Your task to perform on an android device: Clear all items from cart on costco. Add "bose soundlink mini" to the cart on costco Image 0: 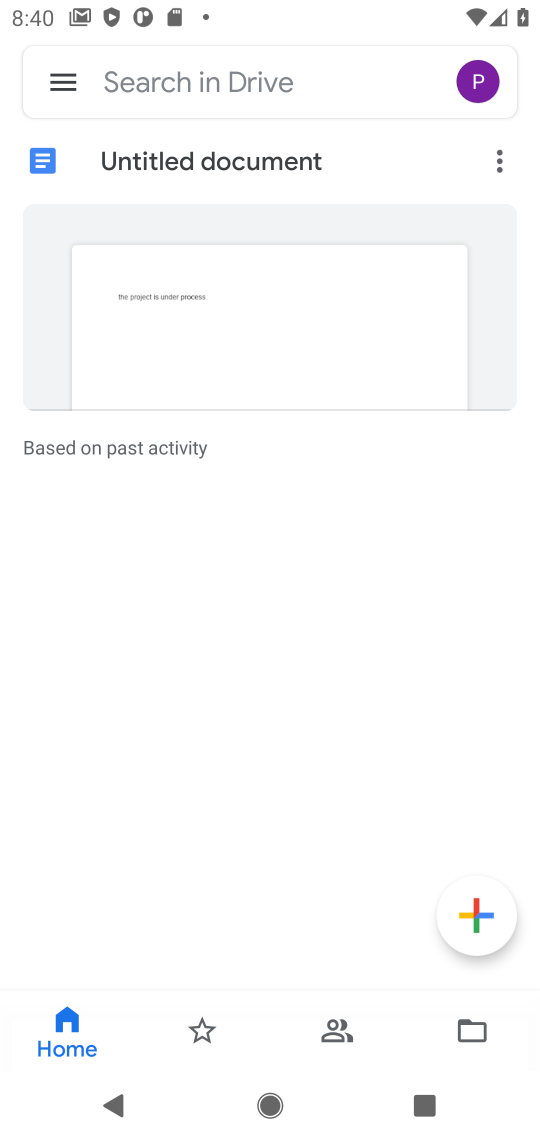
Step 0: press home button
Your task to perform on an android device: Clear all items from cart on costco. Add "bose soundlink mini" to the cart on costco Image 1: 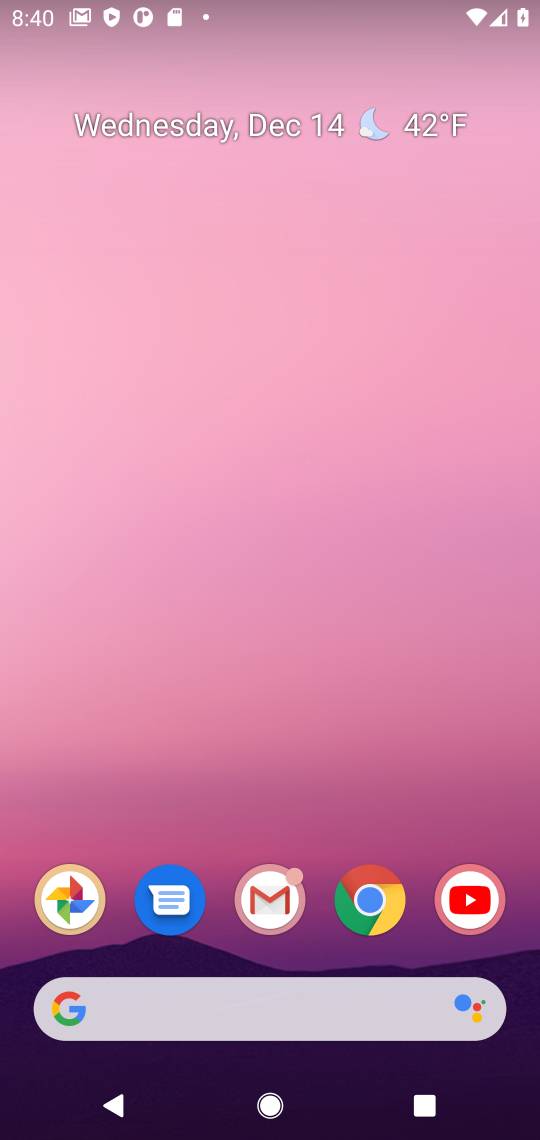
Step 1: click (396, 915)
Your task to perform on an android device: Clear all items from cart on costco. Add "bose soundlink mini" to the cart on costco Image 2: 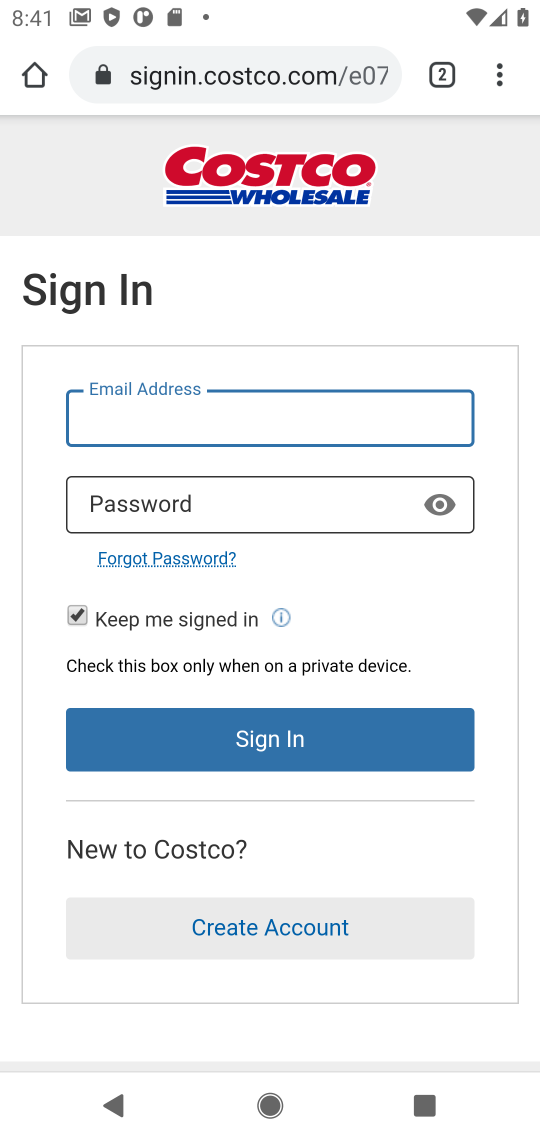
Step 2: press back button
Your task to perform on an android device: Clear all items from cart on costco. Add "bose soundlink mini" to the cart on costco Image 3: 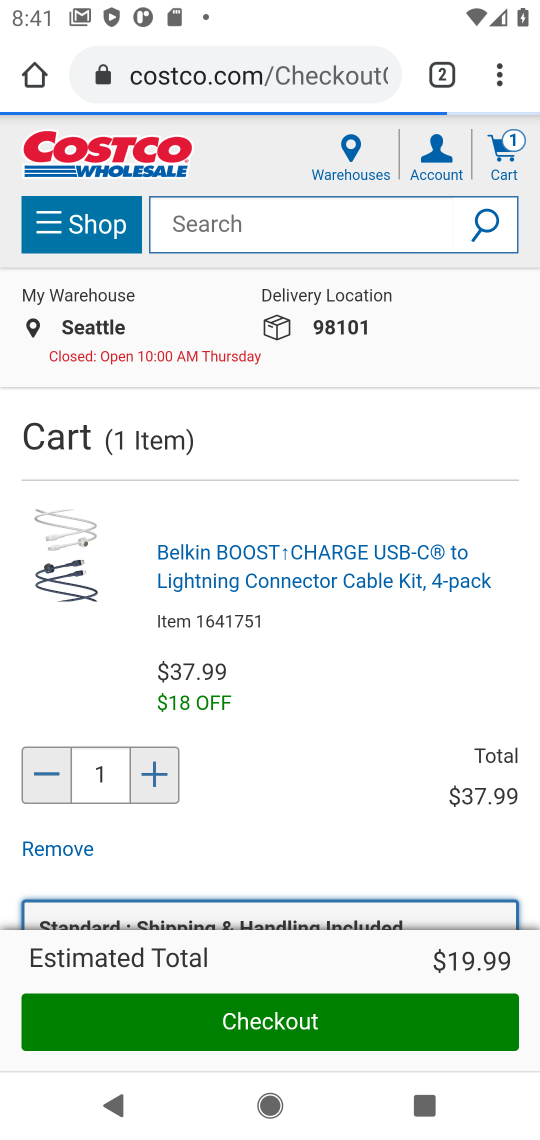
Step 3: click (295, 233)
Your task to perform on an android device: Clear all items from cart on costco. Add "bose soundlink mini" to the cart on costco Image 4: 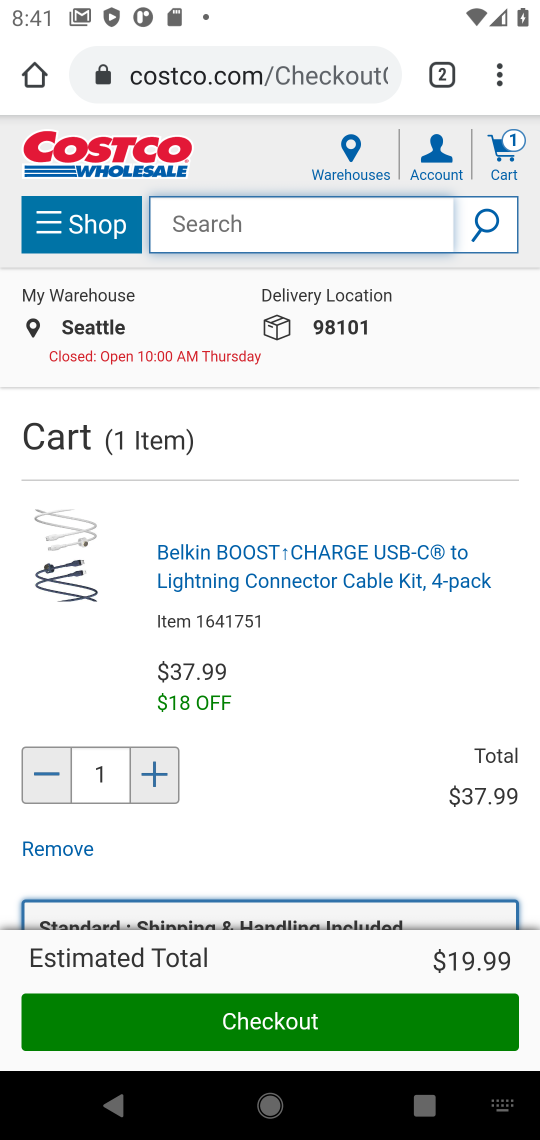
Step 4: click (507, 154)
Your task to perform on an android device: Clear all items from cart on costco. Add "bose soundlink mini" to the cart on costco Image 5: 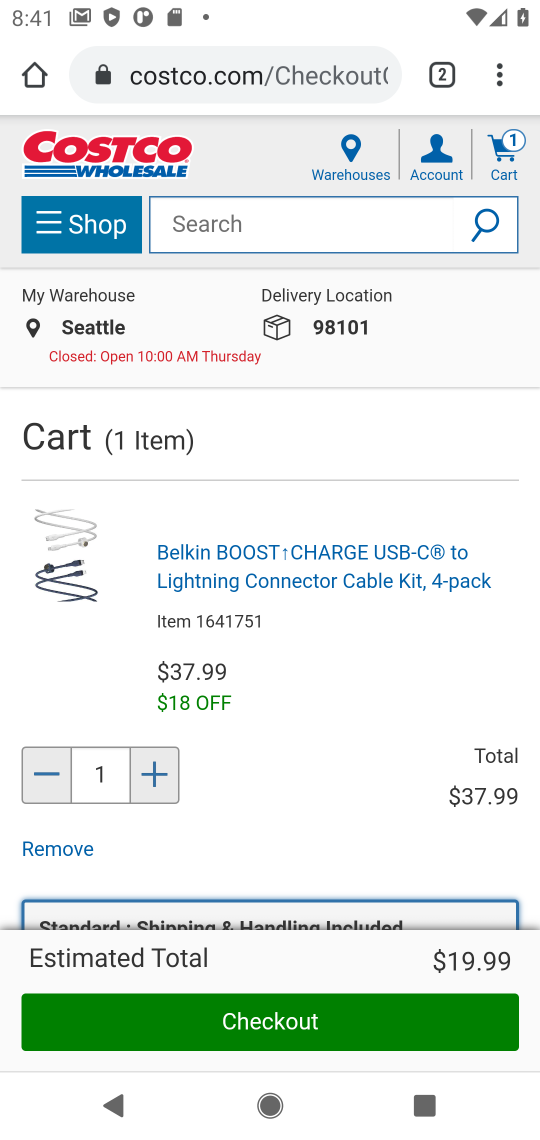
Step 5: click (55, 852)
Your task to perform on an android device: Clear all items from cart on costco. Add "bose soundlink mini" to the cart on costco Image 6: 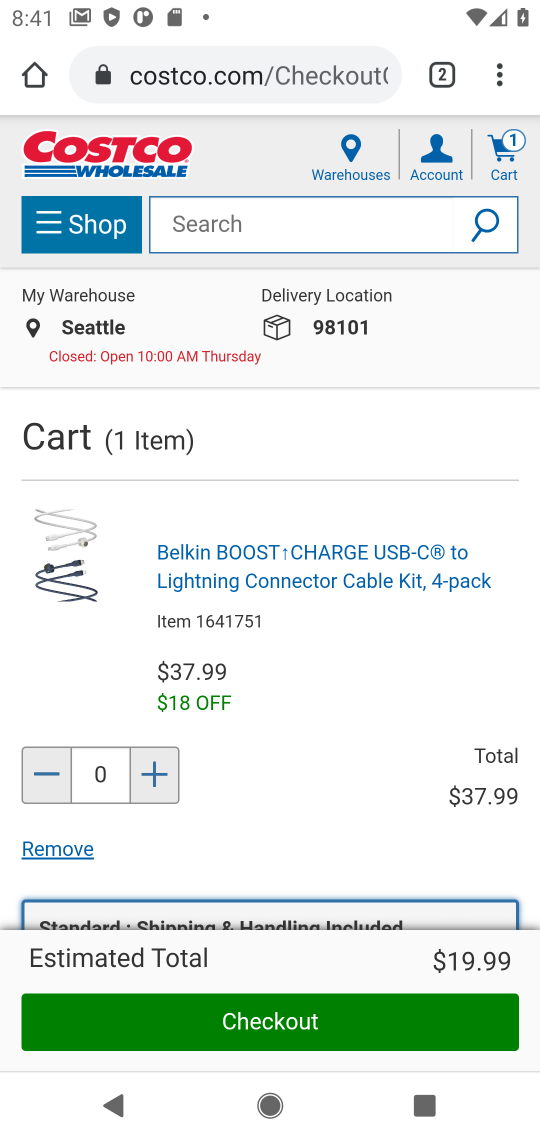
Step 6: click (54, 853)
Your task to perform on an android device: Clear all items from cart on costco. Add "bose soundlink mini" to the cart on costco Image 7: 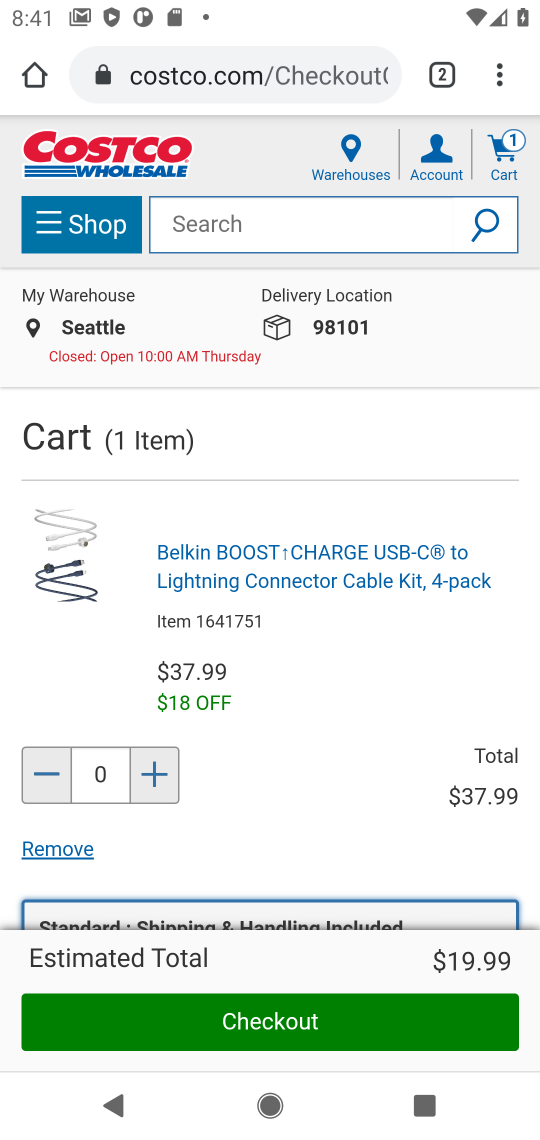
Step 7: click (67, 853)
Your task to perform on an android device: Clear all items from cart on costco. Add "bose soundlink mini" to the cart on costco Image 8: 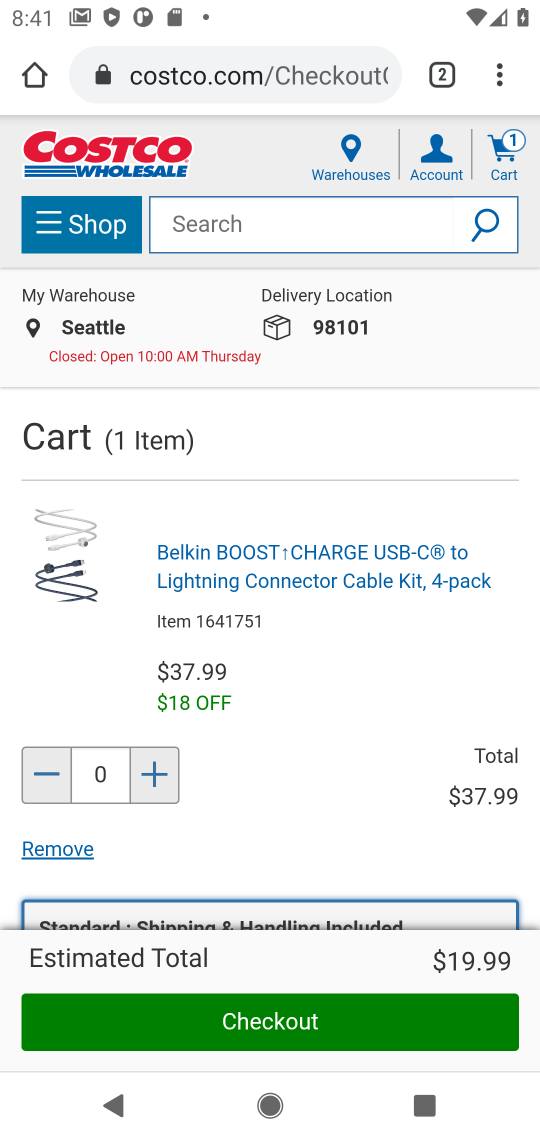
Step 8: drag from (308, 834) to (407, 612)
Your task to perform on an android device: Clear all items from cart on costco. Add "bose soundlink mini" to the cart on costco Image 9: 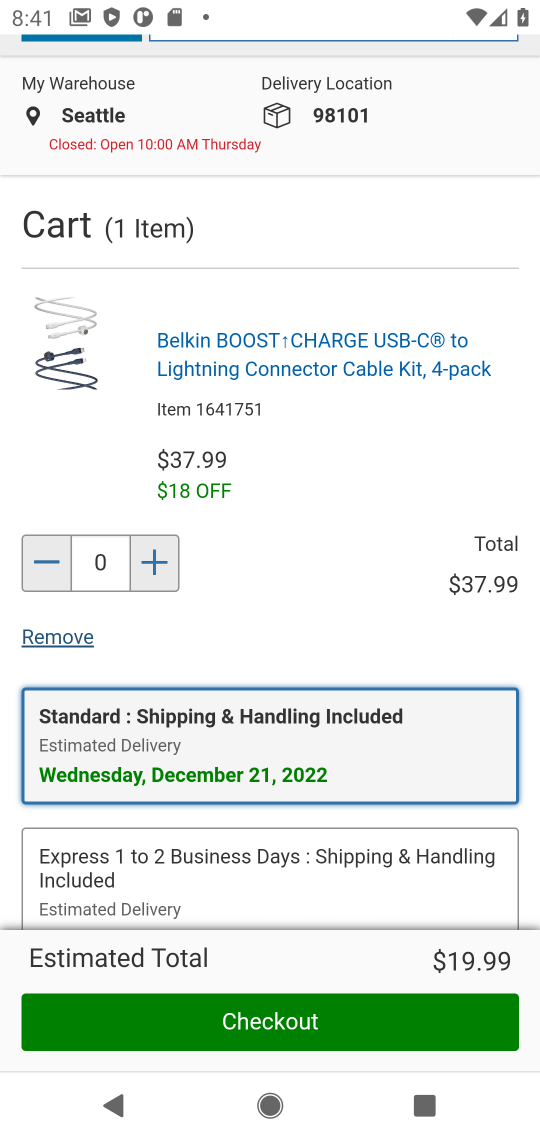
Step 9: drag from (418, 464) to (383, 776)
Your task to perform on an android device: Clear all items from cart on costco. Add "bose soundlink mini" to the cart on costco Image 10: 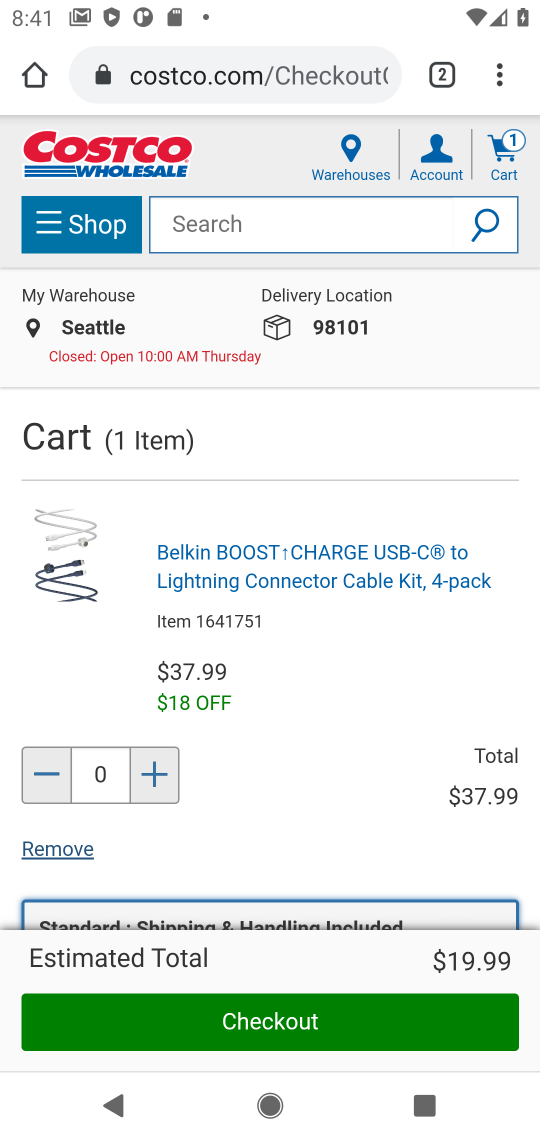
Step 10: click (58, 850)
Your task to perform on an android device: Clear all items from cart on costco. Add "bose soundlink mini" to the cart on costco Image 11: 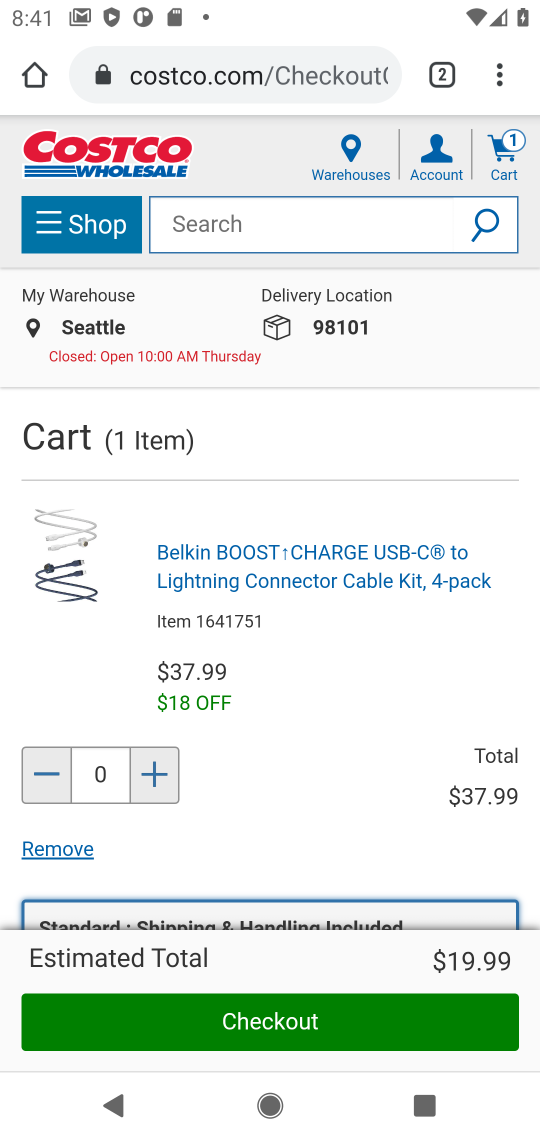
Step 11: drag from (284, 782) to (367, 467)
Your task to perform on an android device: Clear all items from cart on costco. Add "bose soundlink mini" to the cart on costco Image 12: 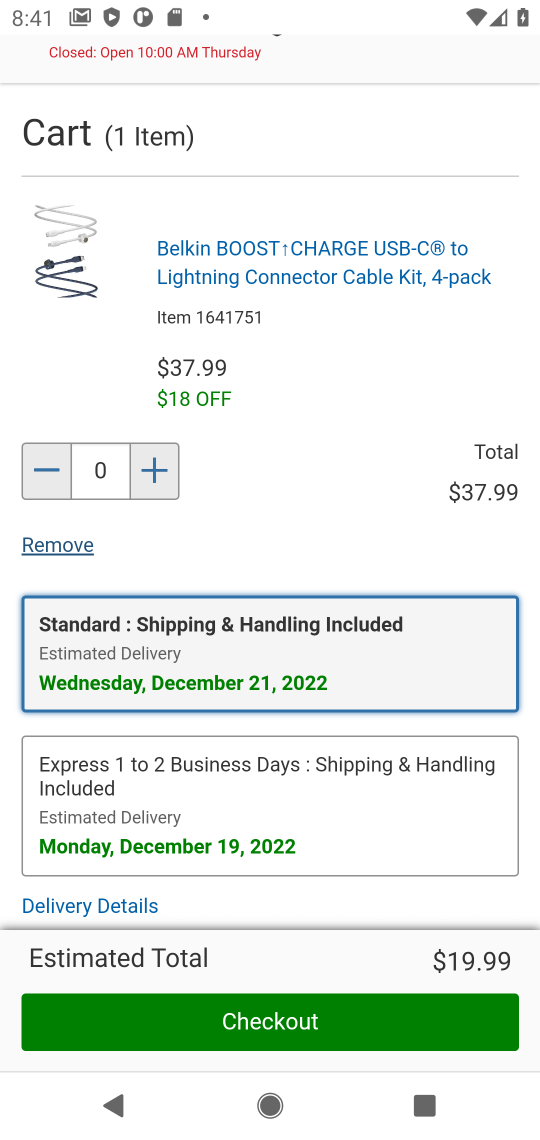
Step 12: drag from (327, 861) to (432, 542)
Your task to perform on an android device: Clear all items from cart on costco. Add "bose soundlink mini" to the cart on costco Image 13: 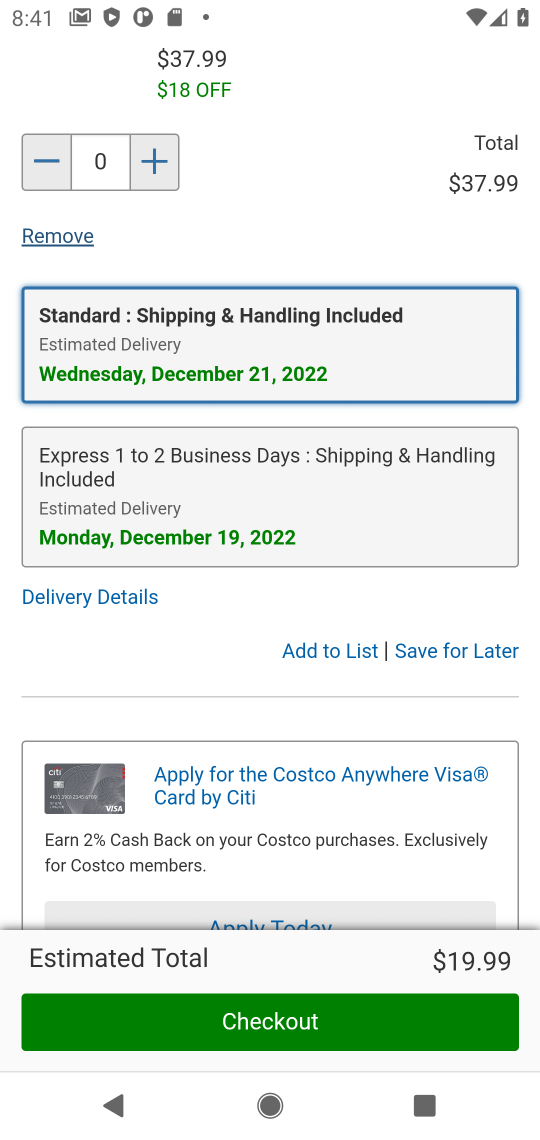
Step 13: drag from (322, 786) to (395, 375)
Your task to perform on an android device: Clear all items from cart on costco. Add "bose soundlink mini" to the cart on costco Image 14: 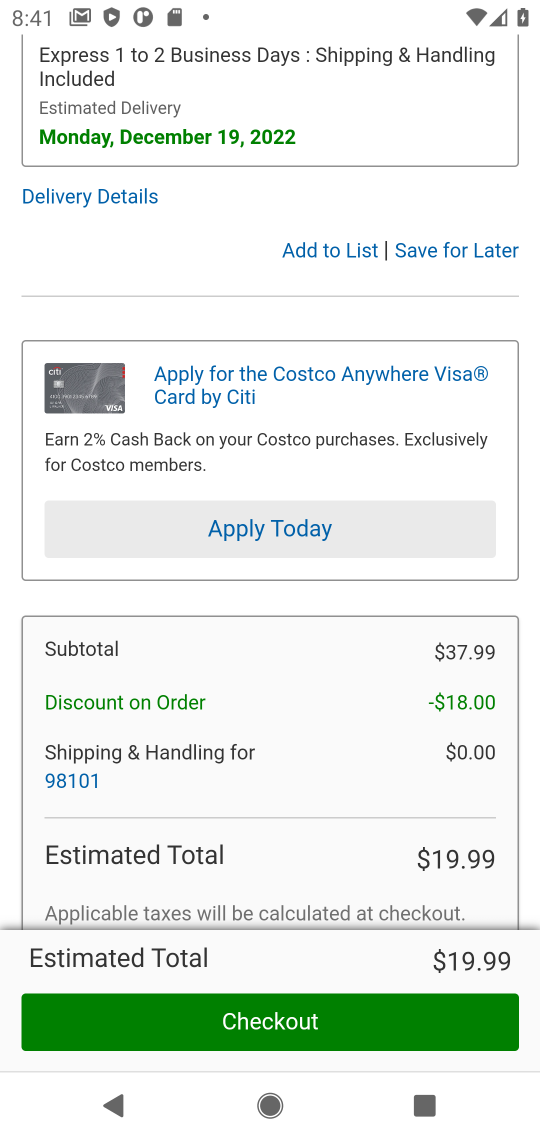
Step 14: drag from (280, 759) to (374, 294)
Your task to perform on an android device: Clear all items from cart on costco. Add "bose soundlink mini" to the cart on costco Image 15: 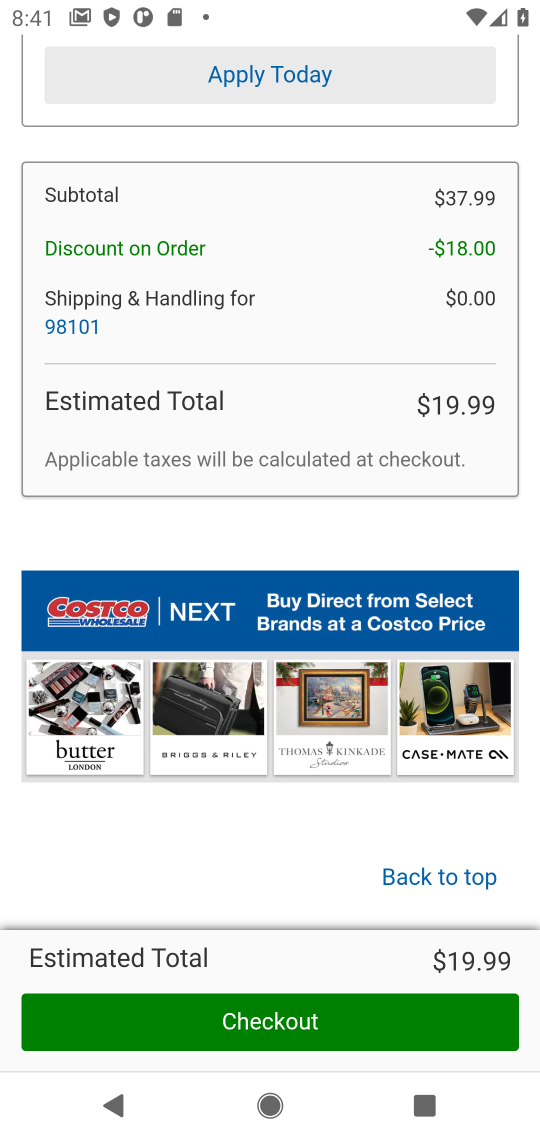
Step 15: drag from (382, 239) to (358, 804)
Your task to perform on an android device: Clear all items from cart on costco. Add "bose soundlink mini" to the cart on costco Image 16: 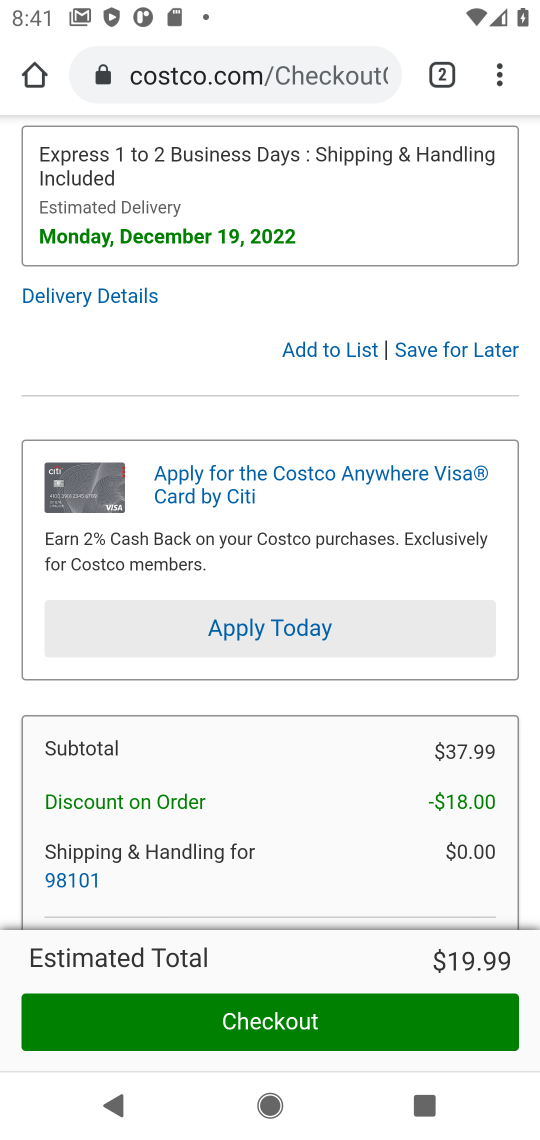
Step 16: drag from (360, 408) to (333, 820)
Your task to perform on an android device: Clear all items from cart on costco. Add "bose soundlink mini" to the cart on costco Image 17: 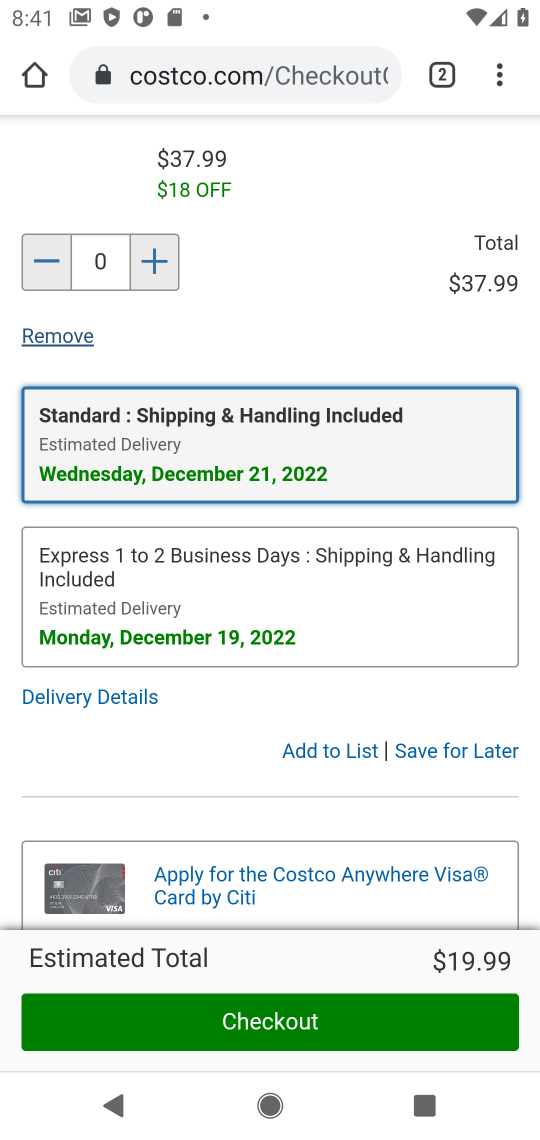
Step 17: drag from (334, 277) to (314, 758)
Your task to perform on an android device: Clear all items from cart on costco. Add "bose soundlink mini" to the cart on costco Image 18: 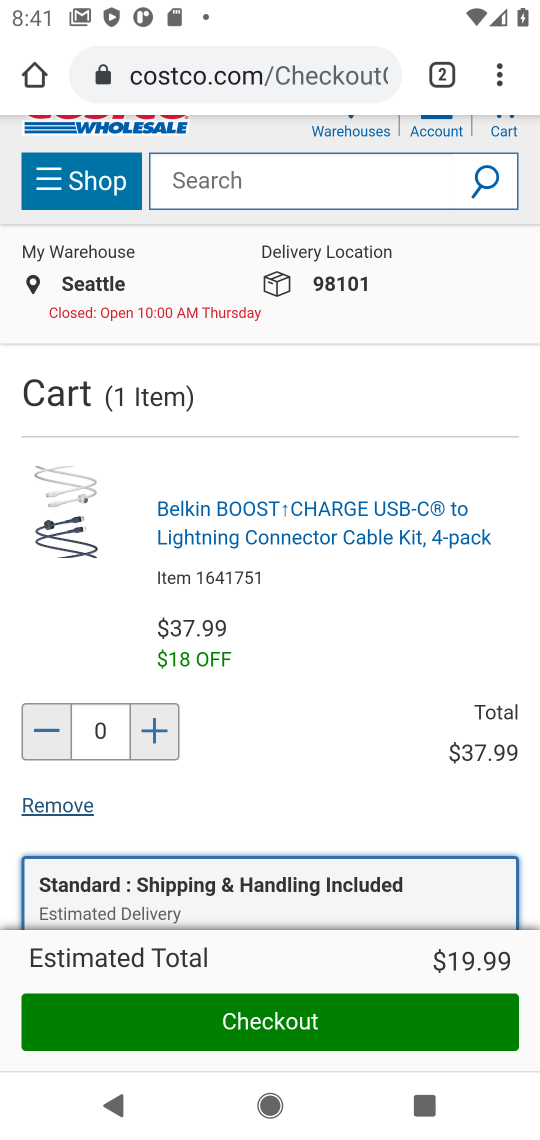
Step 18: click (373, 385)
Your task to perform on an android device: Clear all items from cart on costco. Add "bose soundlink mini" to the cart on costco Image 19: 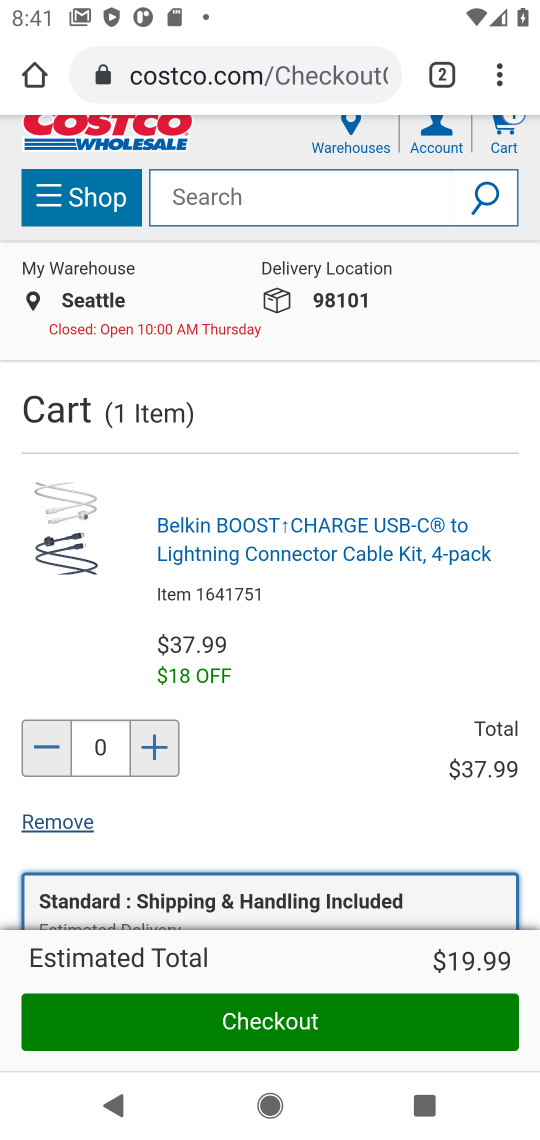
Step 19: drag from (314, 715) to (422, 327)
Your task to perform on an android device: Clear all items from cart on costco. Add "bose soundlink mini" to the cart on costco Image 20: 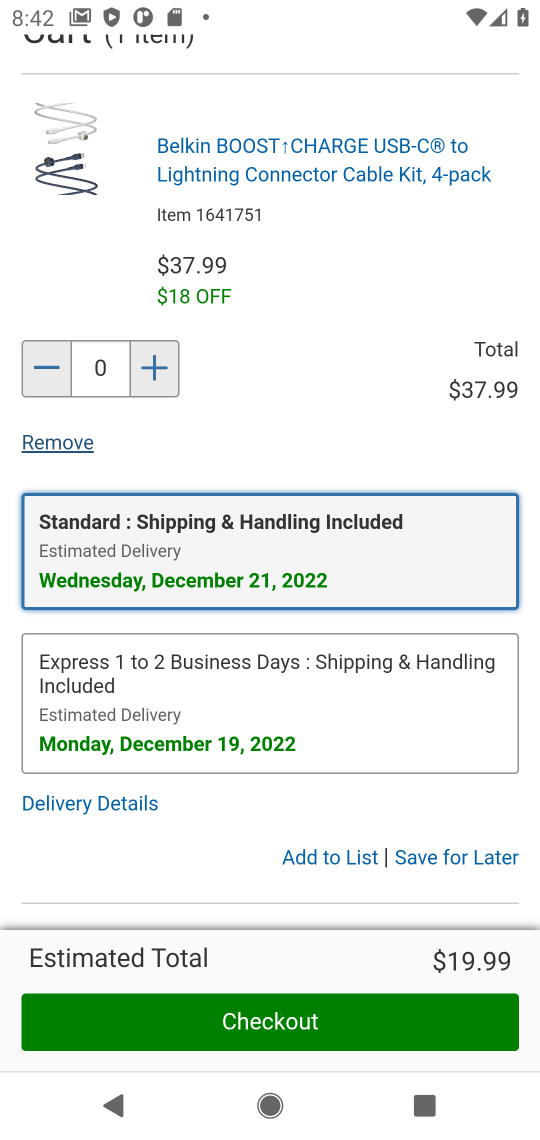
Step 20: click (444, 860)
Your task to perform on an android device: Clear all items from cart on costco. Add "bose soundlink mini" to the cart on costco Image 21: 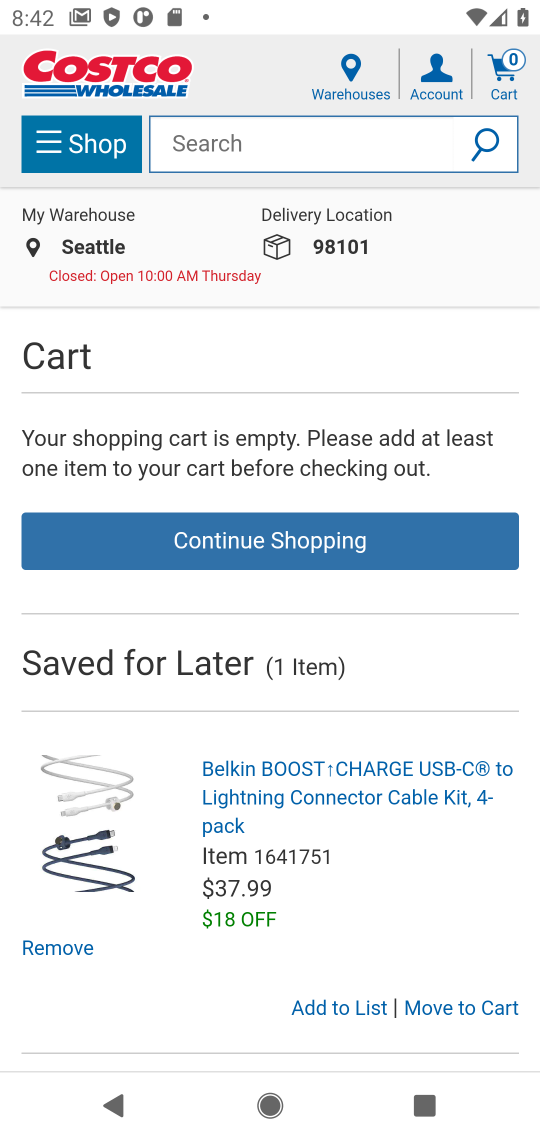
Step 21: click (333, 137)
Your task to perform on an android device: Clear all items from cart on costco. Add "bose soundlink mini" to the cart on costco Image 22: 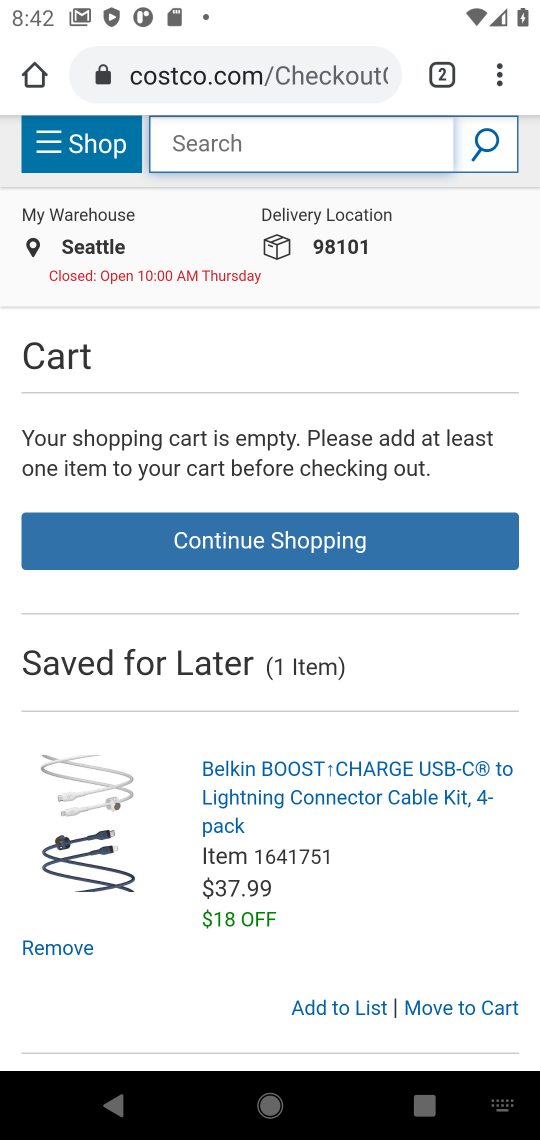
Step 22: type "boss soundlink mini"
Your task to perform on an android device: Clear all items from cart on costco. Add "bose soundlink mini" to the cart on costco Image 23: 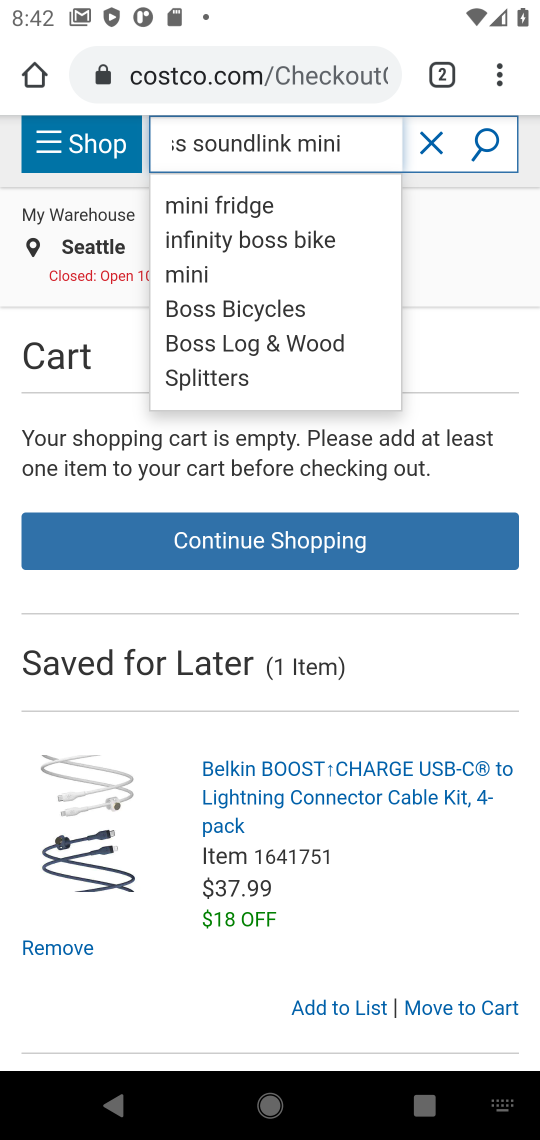
Step 23: click (488, 139)
Your task to perform on an android device: Clear all items from cart on costco. Add "bose soundlink mini" to the cart on costco Image 24: 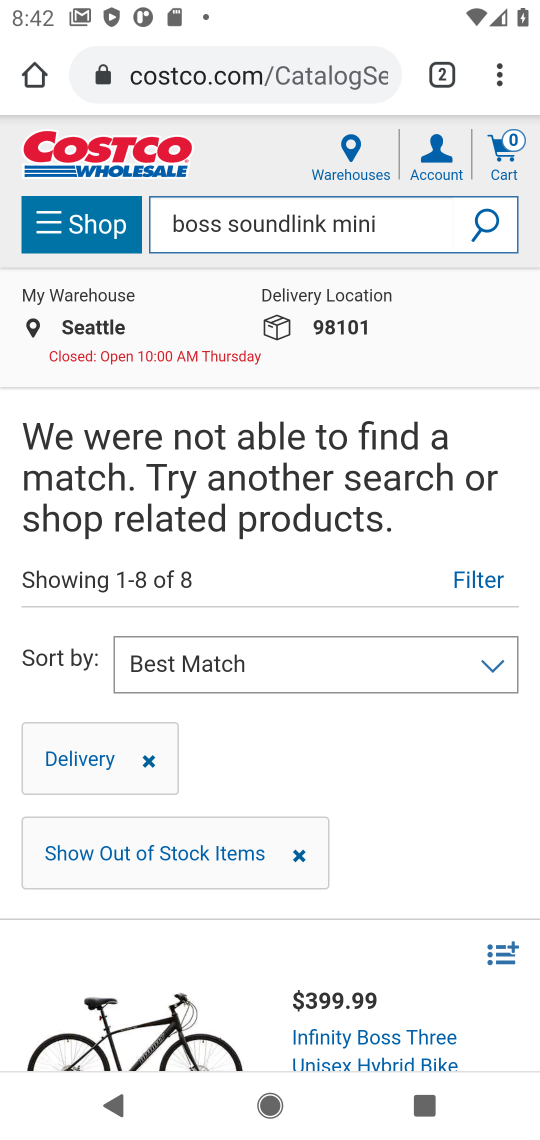
Step 24: task complete